Your task to perform on an android device: Open Google Maps Image 0: 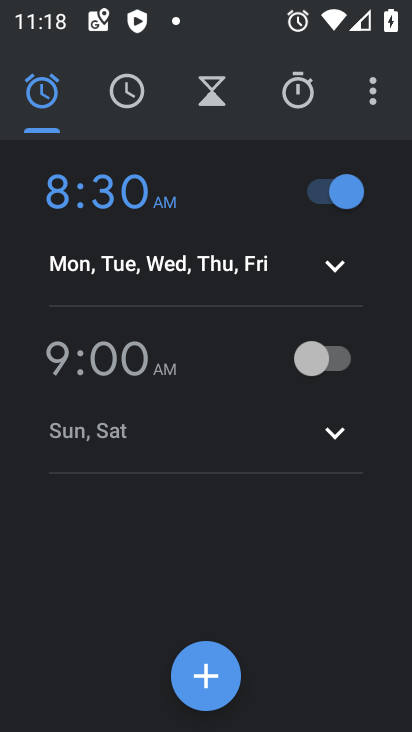
Step 0: press home button
Your task to perform on an android device: Open Google Maps Image 1: 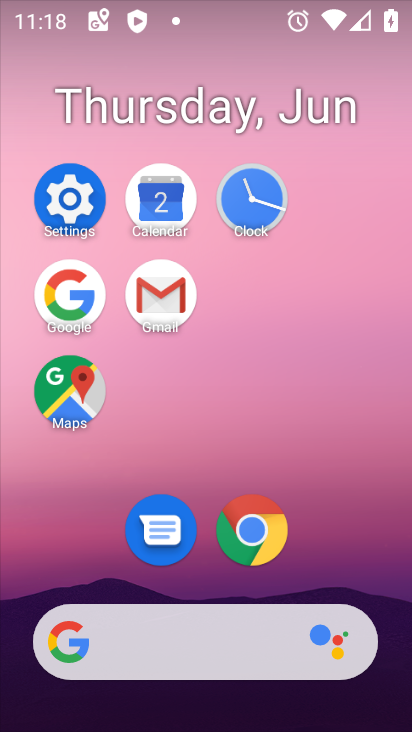
Step 1: click (82, 382)
Your task to perform on an android device: Open Google Maps Image 2: 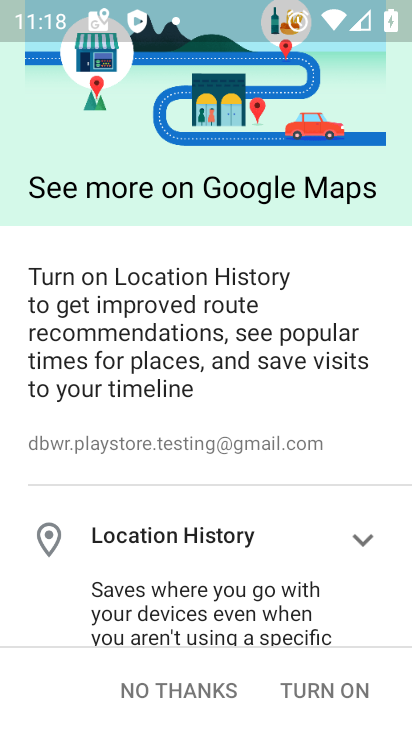
Step 2: task complete